Your task to perform on an android device: When is my next meeting? Image 0: 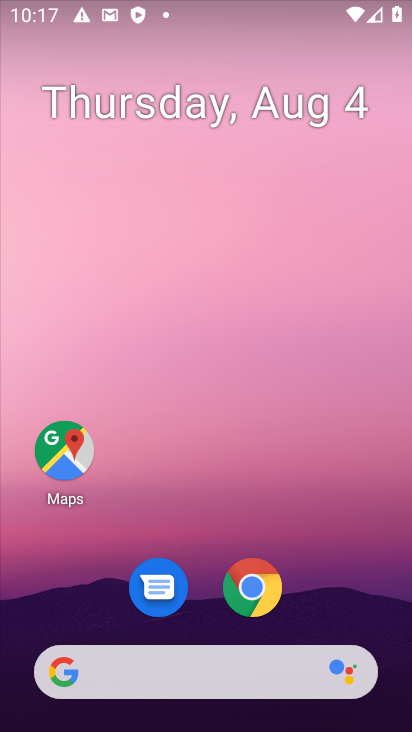
Step 0: drag from (239, 602) to (226, 214)
Your task to perform on an android device: When is my next meeting? Image 1: 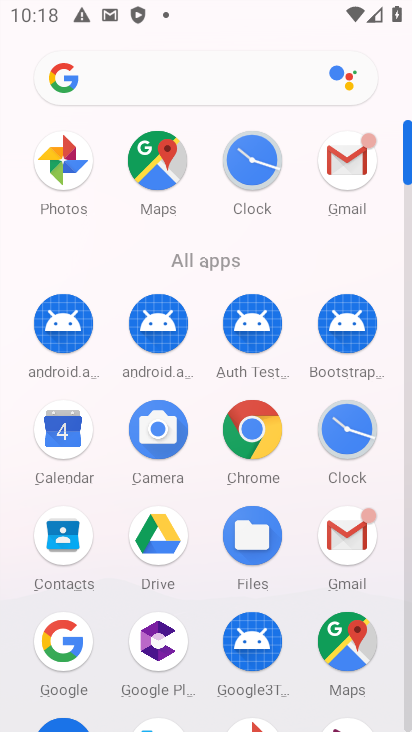
Step 1: click (59, 422)
Your task to perform on an android device: When is my next meeting? Image 2: 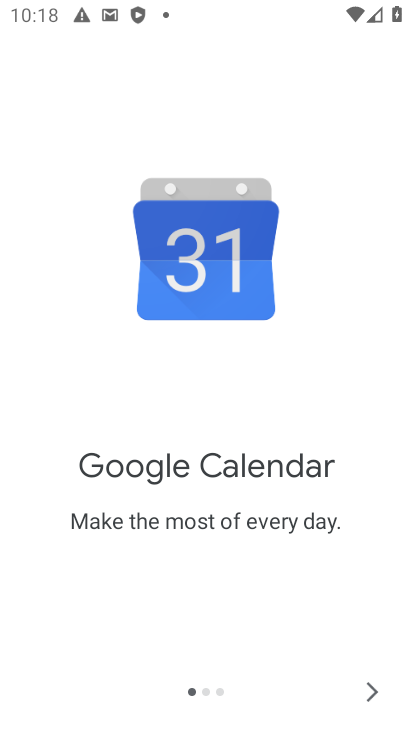
Step 2: click (374, 678)
Your task to perform on an android device: When is my next meeting? Image 3: 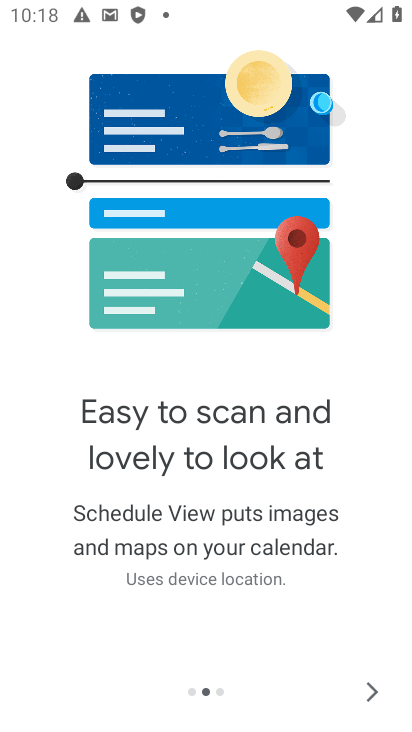
Step 3: click (373, 702)
Your task to perform on an android device: When is my next meeting? Image 4: 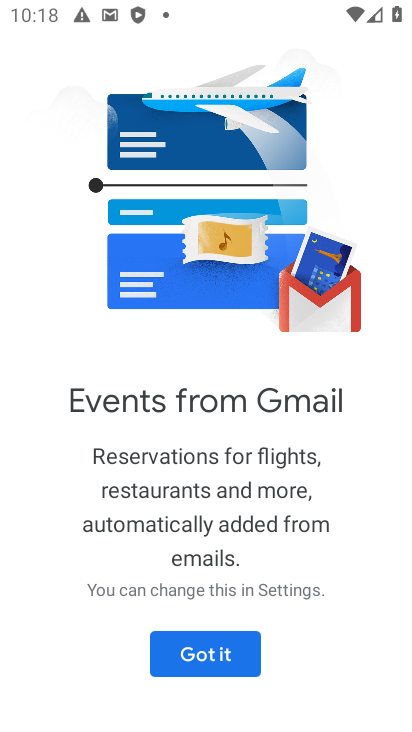
Step 4: click (186, 653)
Your task to perform on an android device: When is my next meeting? Image 5: 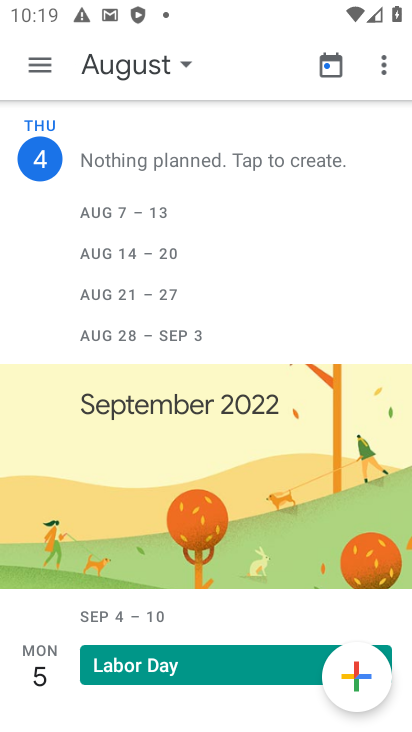
Step 5: task complete